Your task to perform on an android device: turn off improve location accuracy Image 0: 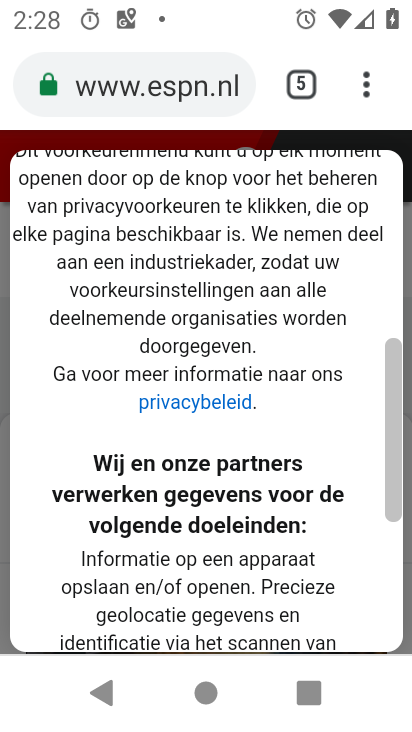
Step 0: drag from (316, 452) to (294, 225)
Your task to perform on an android device: turn off improve location accuracy Image 1: 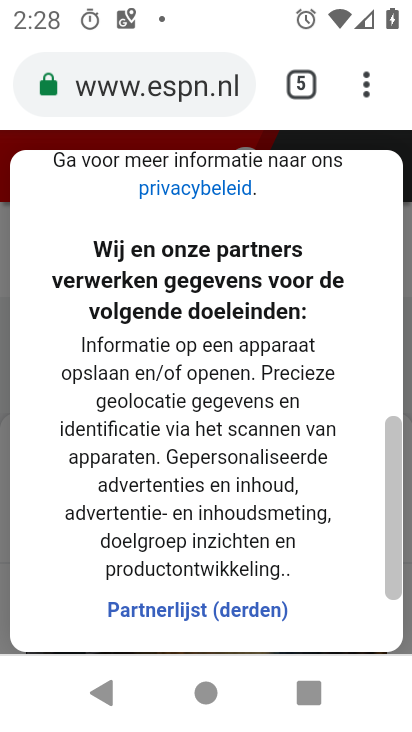
Step 1: press home button
Your task to perform on an android device: turn off improve location accuracy Image 2: 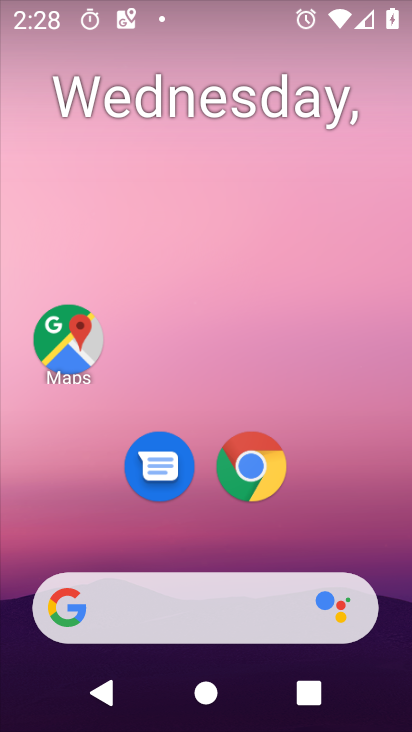
Step 2: drag from (362, 543) to (250, 100)
Your task to perform on an android device: turn off improve location accuracy Image 3: 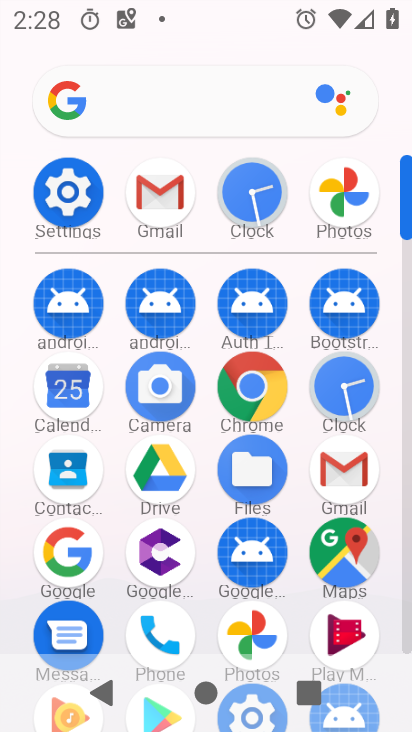
Step 3: click (67, 201)
Your task to perform on an android device: turn off improve location accuracy Image 4: 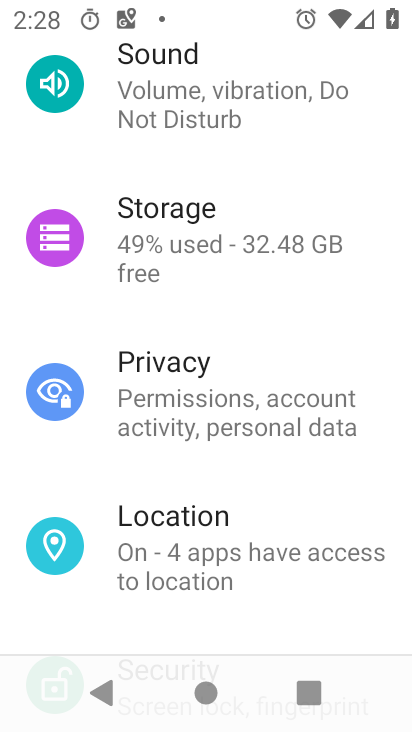
Step 4: click (208, 545)
Your task to perform on an android device: turn off improve location accuracy Image 5: 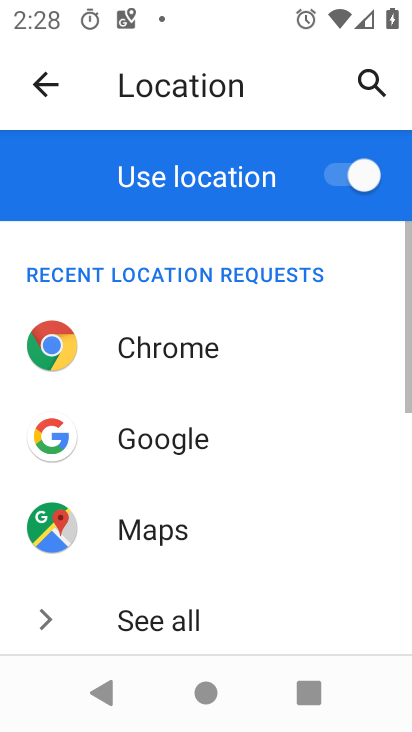
Step 5: drag from (205, 542) to (118, 31)
Your task to perform on an android device: turn off improve location accuracy Image 6: 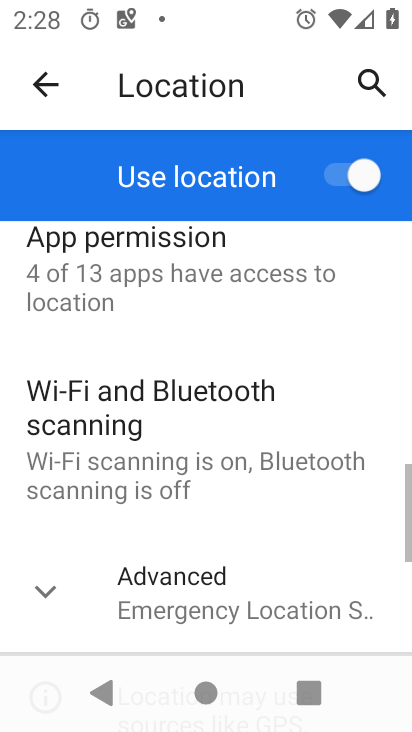
Step 6: click (224, 594)
Your task to perform on an android device: turn off improve location accuracy Image 7: 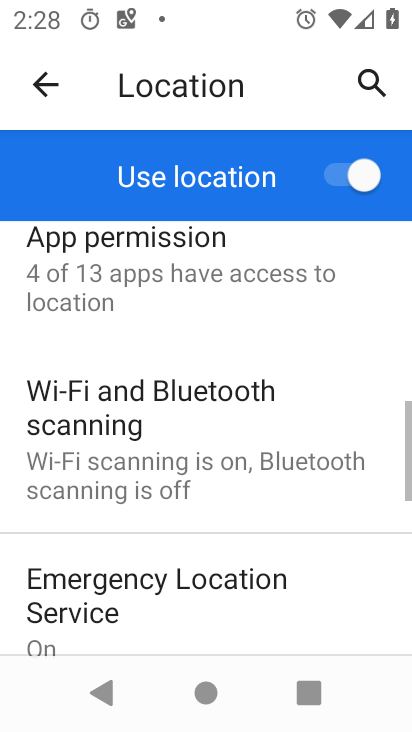
Step 7: drag from (210, 559) to (177, 115)
Your task to perform on an android device: turn off improve location accuracy Image 8: 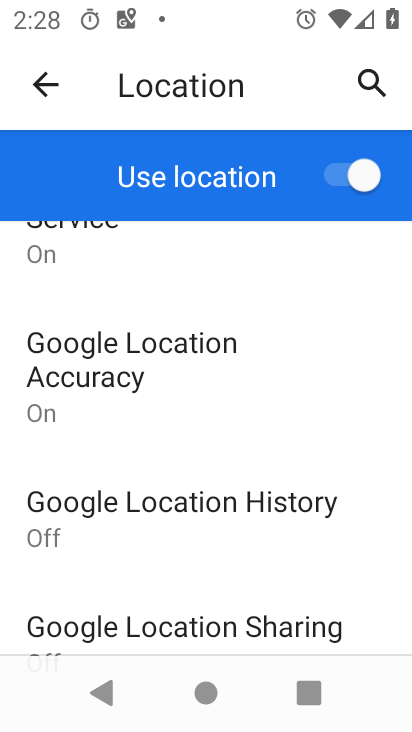
Step 8: drag from (236, 540) to (234, 146)
Your task to perform on an android device: turn off improve location accuracy Image 9: 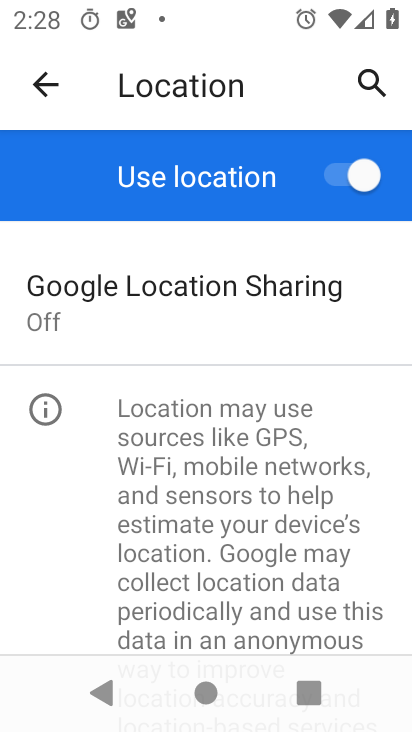
Step 9: drag from (269, 544) to (208, 72)
Your task to perform on an android device: turn off improve location accuracy Image 10: 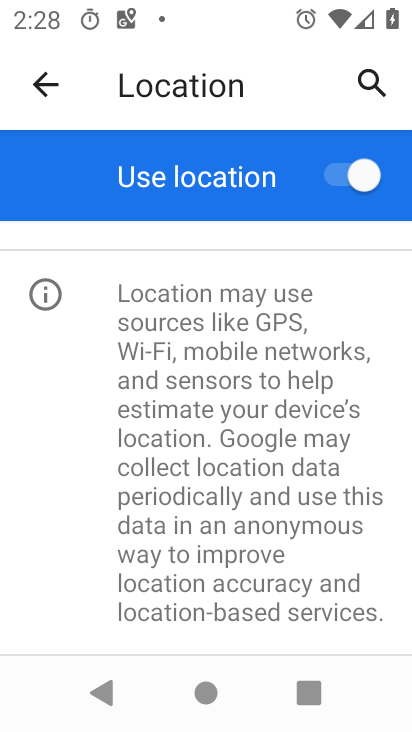
Step 10: drag from (239, 308) to (214, 608)
Your task to perform on an android device: turn off improve location accuracy Image 11: 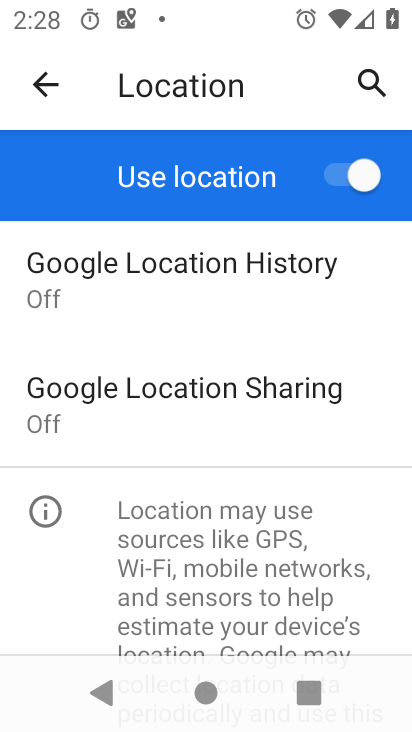
Step 11: drag from (185, 337) to (198, 590)
Your task to perform on an android device: turn off improve location accuracy Image 12: 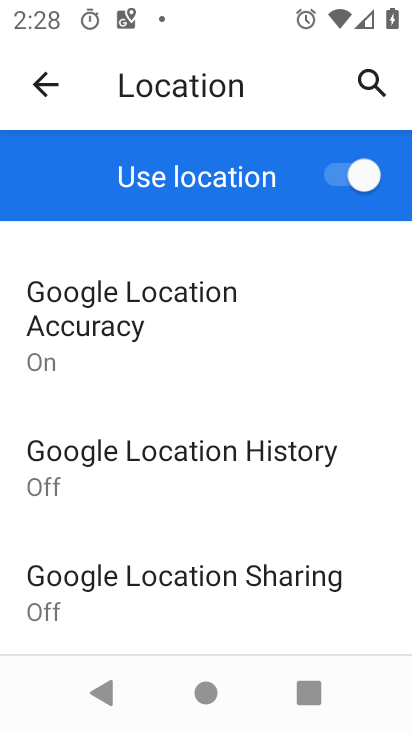
Step 12: drag from (238, 536) to (254, 624)
Your task to perform on an android device: turn off improve location accuracy Image 13: 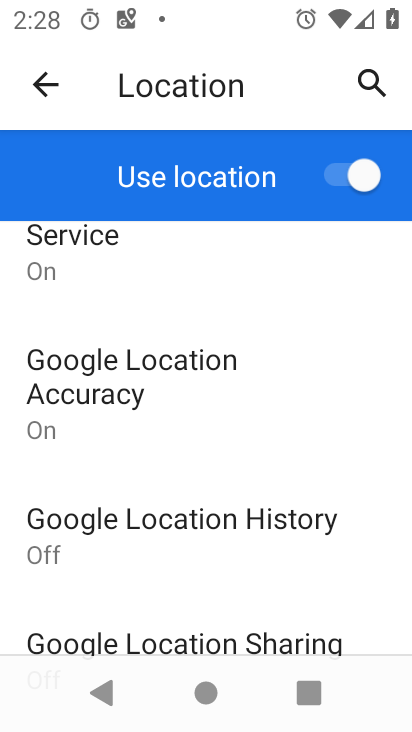
Step 13: drag from (236, 298) to (285, 518)
Your task to perform on an android device: turn off improve location accuracy Image 14: 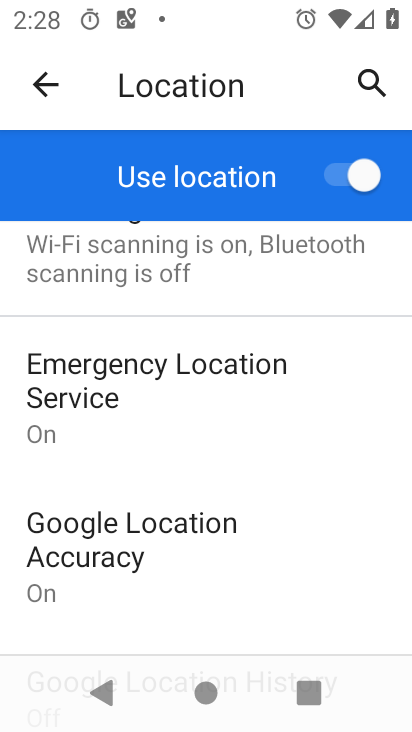
Step 14: drag from (266, 371) to (319, 646)
Your task to perform on an android device: turn off improve location accuracy Image 15: 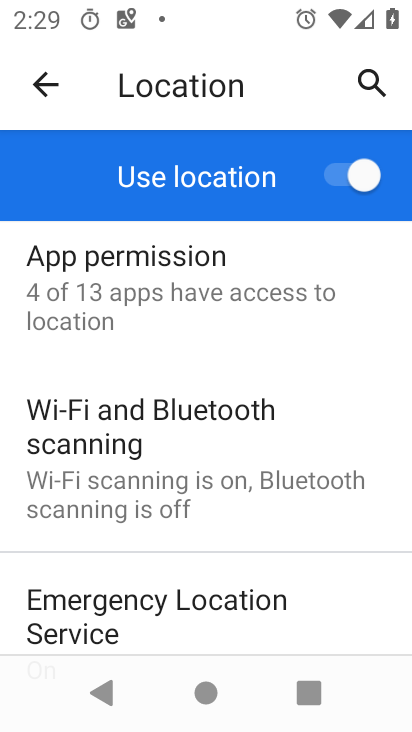
Step 15: drag from (149, 479) to (134, 128)
Your task to perform on an android device: turn off improve location accuracy Image 16: 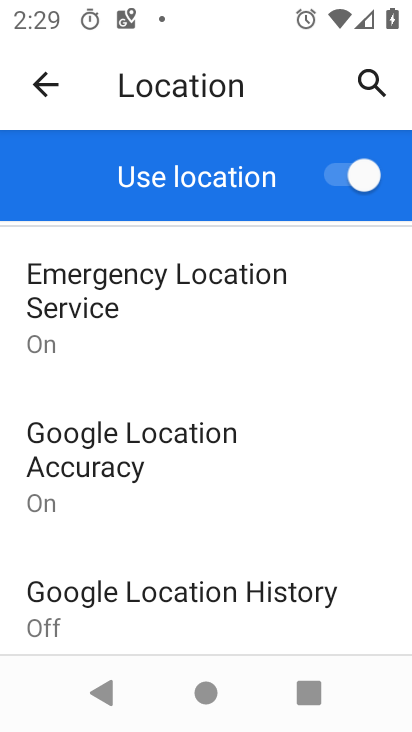
Step 16: drag from (162, 445) to (148, 173)
Your task to perform on an android device: turn off improve location accuracy Image 17: 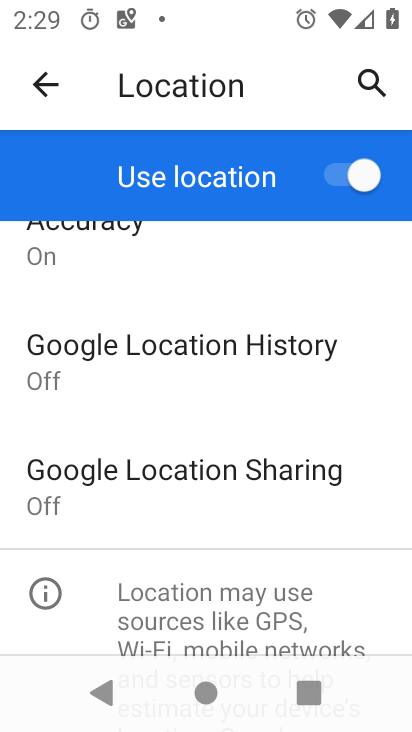
Step 17: drag from (168, 354) to (133, 641)
Your task to perform on an android device: turn off improve location accuracy Image 18: 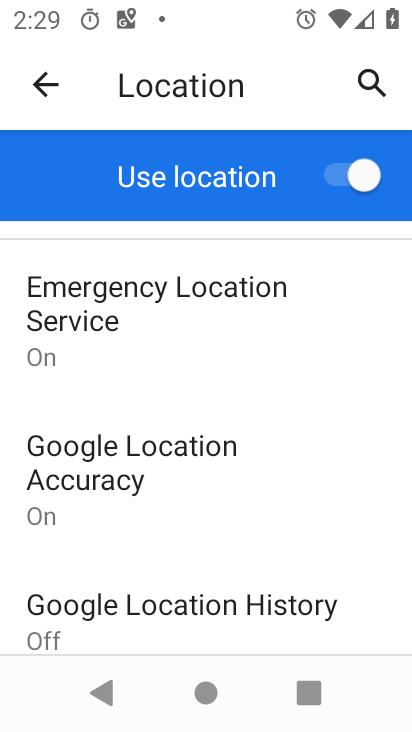
Step 18: click (136, 495)
Your task to perform on an android device: turn off improve location accuracy Image 19: 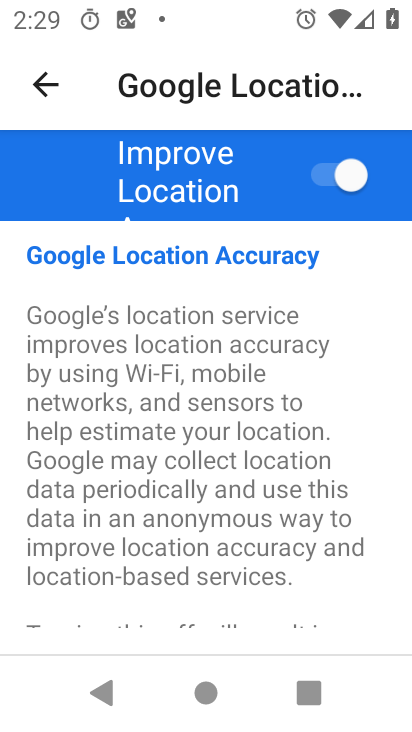
Step 19: click (351, 177)
Your task to perform on an android device: turn off improve location accuracy Image 20: 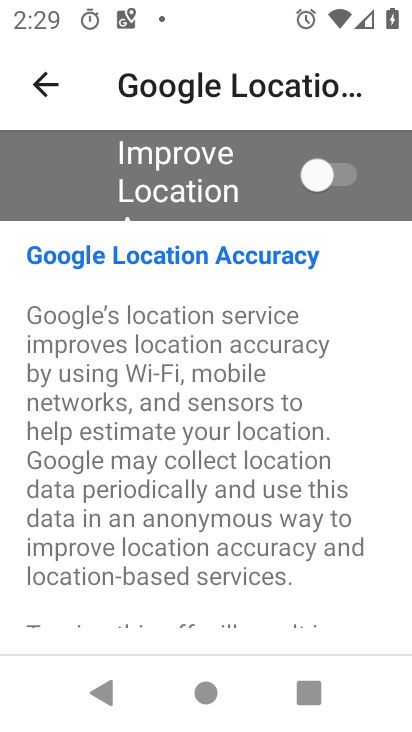
Step 20: task complete